Your task to perform on an android device: Open privacy settings Image 0: 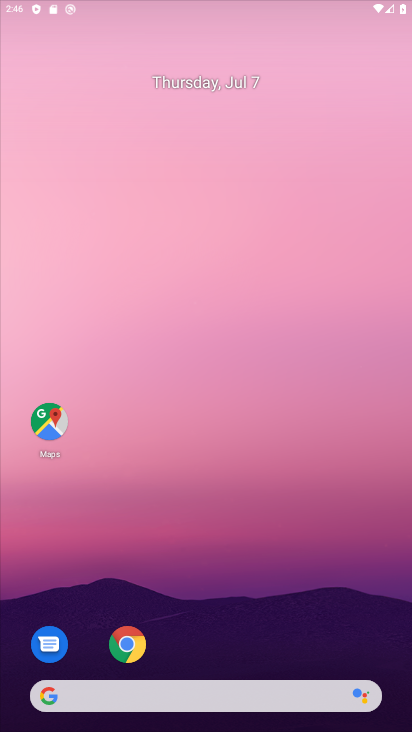
Step 0: drag from (224, 716) to (157, 226)
Your task to perform on an android device: Open privacy settings Image 1: 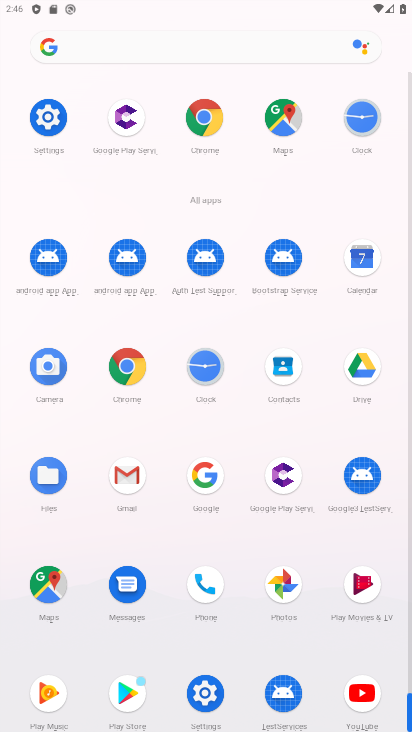
Step 1: click (35, 100)
Your task to perform on an android device: Open privacy settings Image 2: 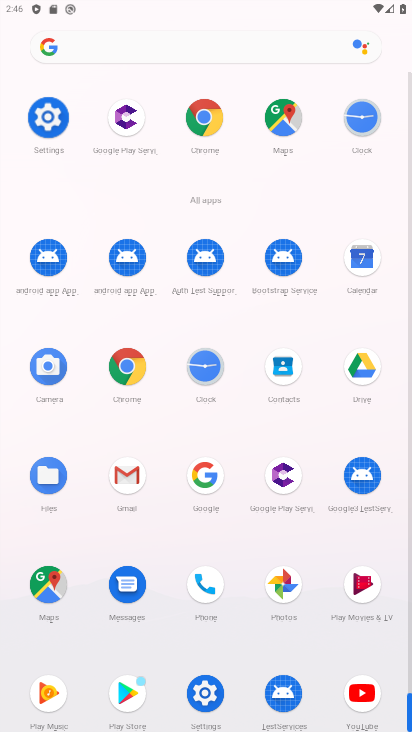
Step 2: click (36, 103)
Your task to perform on an android device: Open privacy settings Image 3: 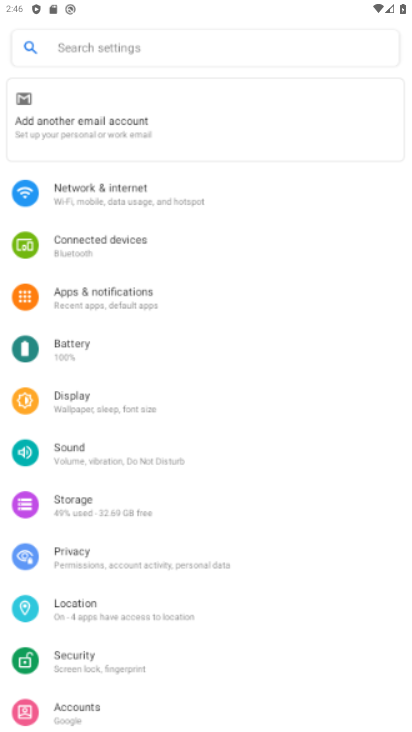
Step 3: click (37, 103)
Your task to perform on an android device: Open privacy settings Image 4: 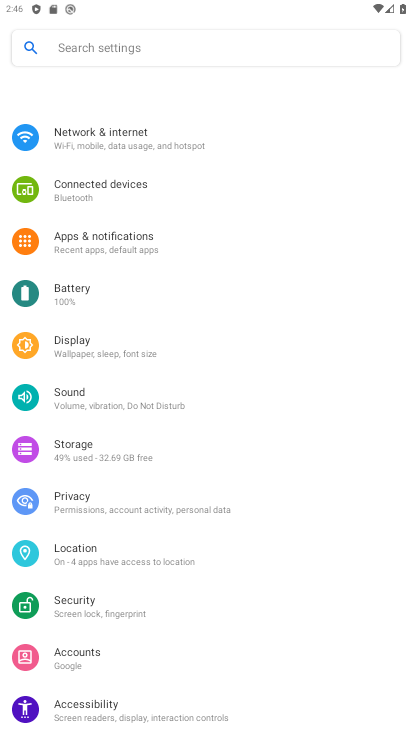
Step 4: click (37, 103)
Your task to perform on an android device: Open privacy settings Image 5: 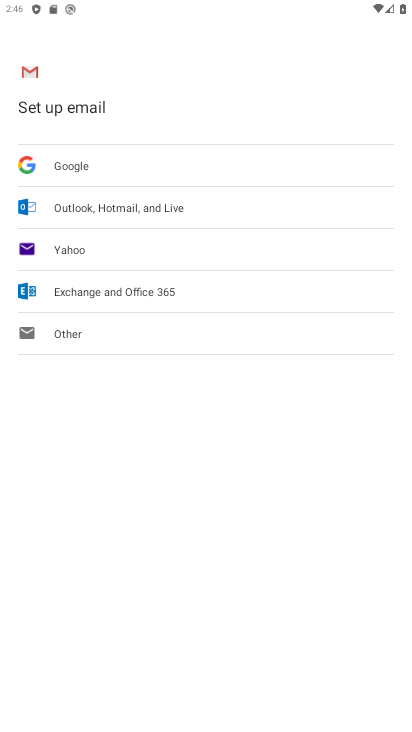
Step 5: press back button
Your task to perform on an android device: Open privacy settings Image 6: 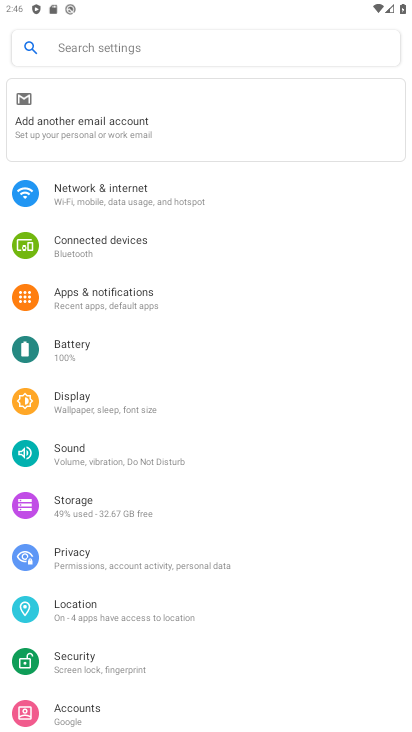
Step 6: click (87, 554)
Your task to perform on an android device: Open privacy settings Image 7: 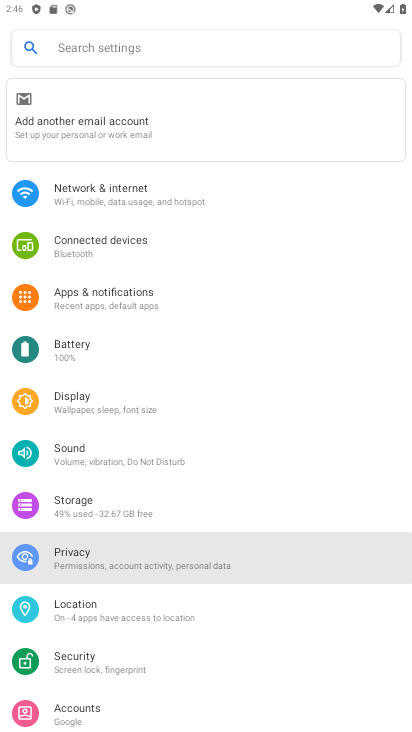
Step 7: click (102, 553)
Your task to perform on an android device: Open privacy settings Image 8: 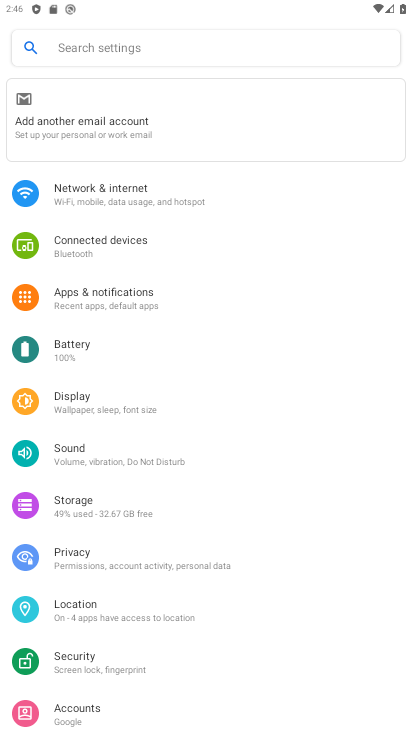
Step 8: click (103, 555)
Your task to perform on an android device: Open privacy settings Image 9: 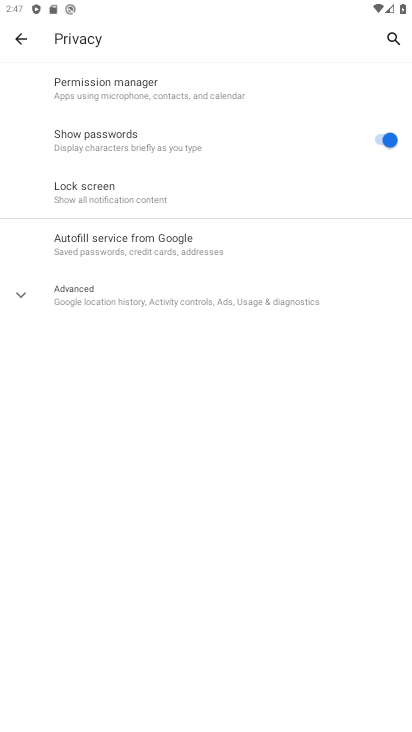
Step 9: task complete